Your task to perform on an android device: Open the web browser Image 0: 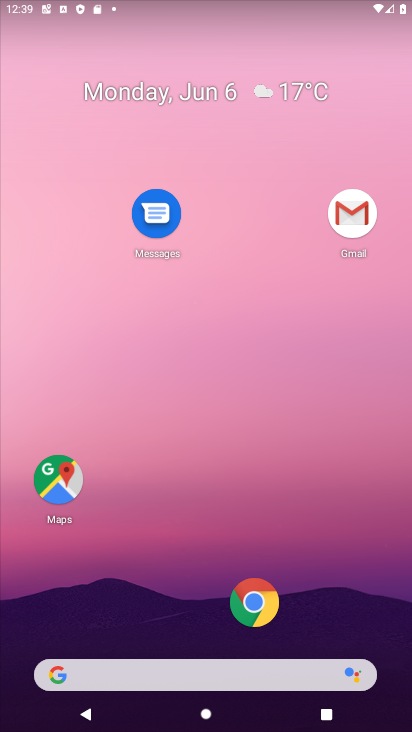
Step 0: click (241, 608)
Your task to perform on an android device: Open the web browser Image 1: 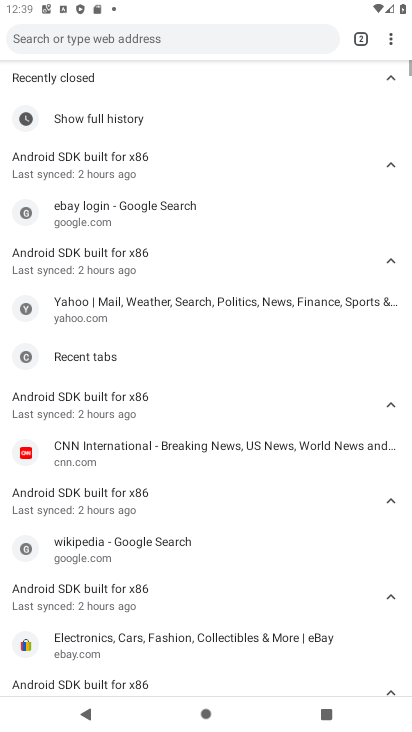
Step 1: task complete